Your task to perform on an android device: choose inbox layout in the gmail app Image 0: 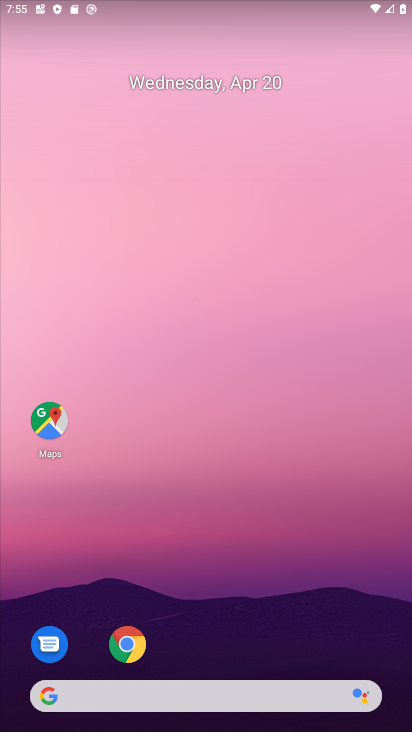
Step 0: drag from (348, 620) to (261, 112)
Your task to perform on an android device: choose inbox layout in the gmail app Image 1: 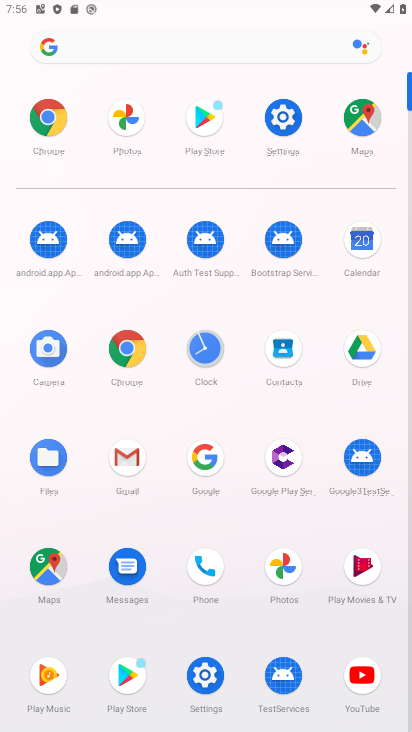
Step 1: click (132, 458)
Your task to perform on an android device: choose inbox layout in the gmail app Image 2: 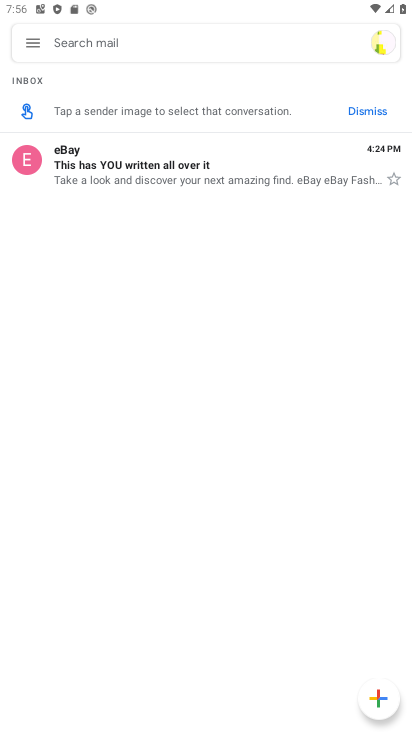
Step 2: task complete